Your task to perform on an android device: See recent photos Image 0: 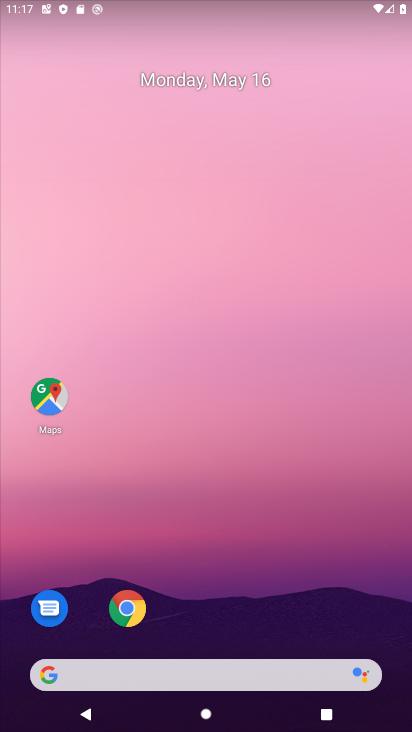
Step 0: press home button
Your task to perform on an android device: See recent photos Image 1: 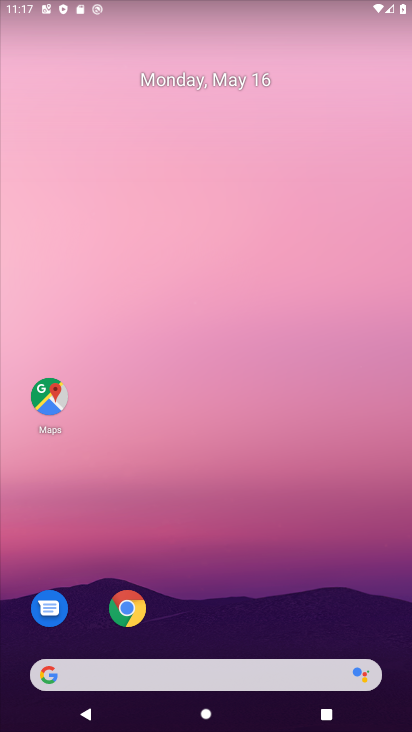
Step 1: drag from (161, 649) to (266, 98)
Your task to perform on an android device: See recent photos Image 2: 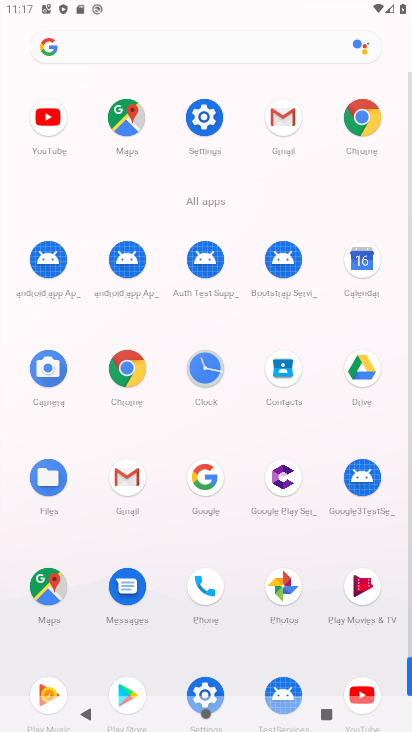
Step 2: click (284, 592)
Your task to perform on an android device: See recent photos Image 3: 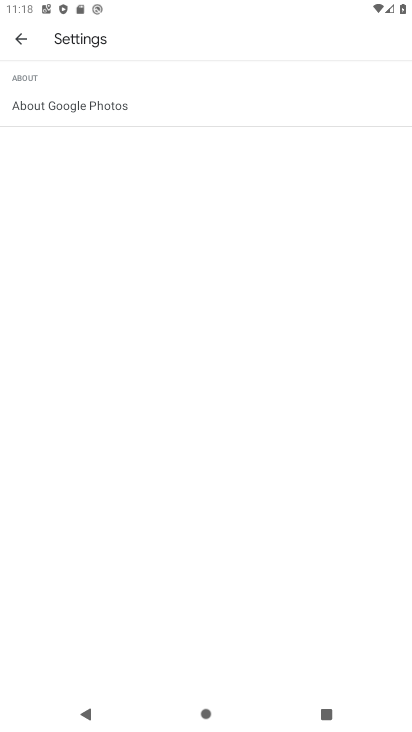
Step 3: click (23, 38)
Your task to perform on an android device: See recent photos Image 4: 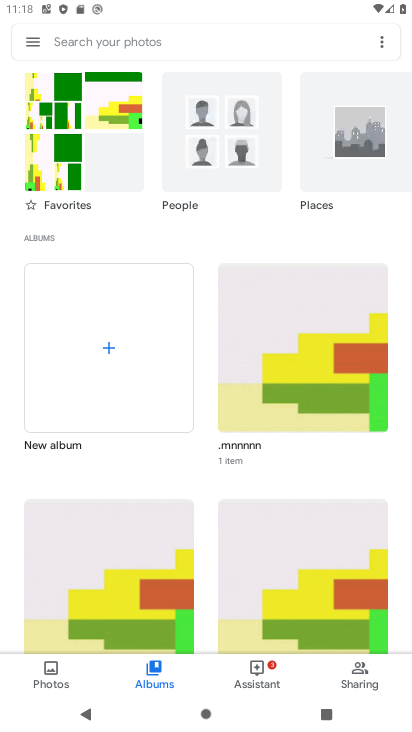
Step 4: task complete